Your task to perform on an android device: Go to Maps Image 0: 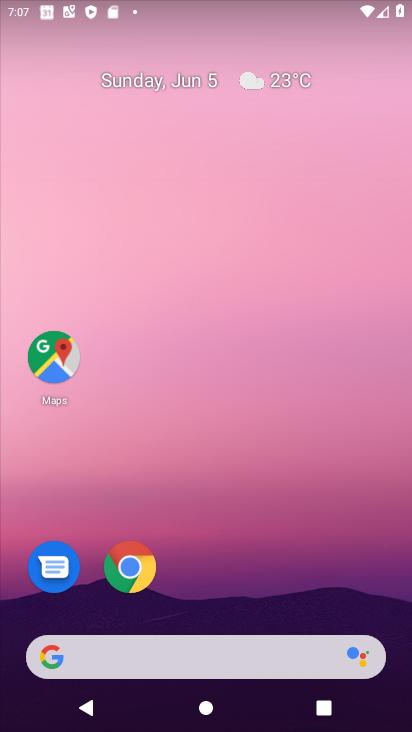
Step 0: drag from (345, 522) to (283, 52)
Your task to perform on an android device: Go to Maps Image 1: 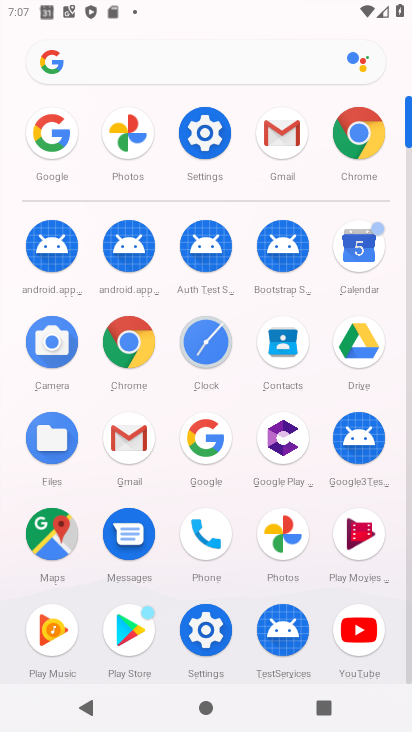
Step 1: click (57, 532)
Your task to perform on an android device: Go to Maps Image 2: 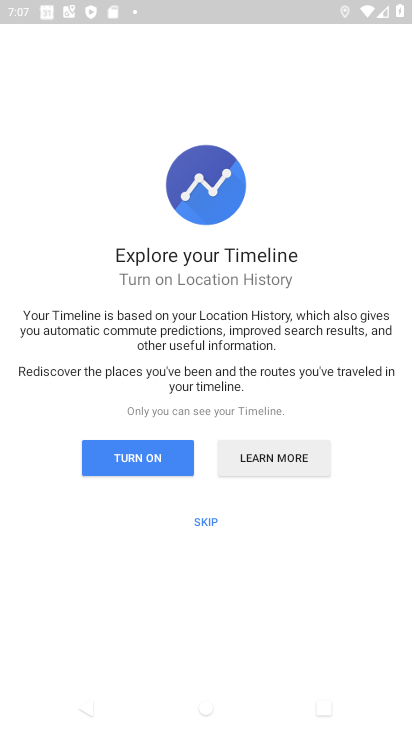
Step 2: task complete